Your task to perform on an android device: Go to Android settings Image 0: 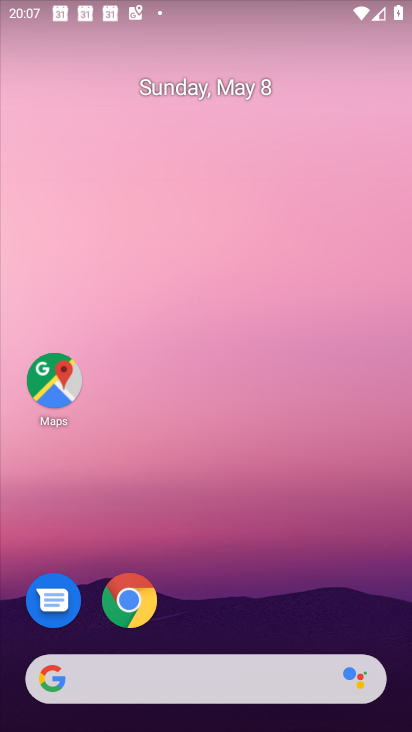
Step 0: drag from (277, 709) to (229, 172)
Your task to perform on an android device: Go to Android settings Image 1: 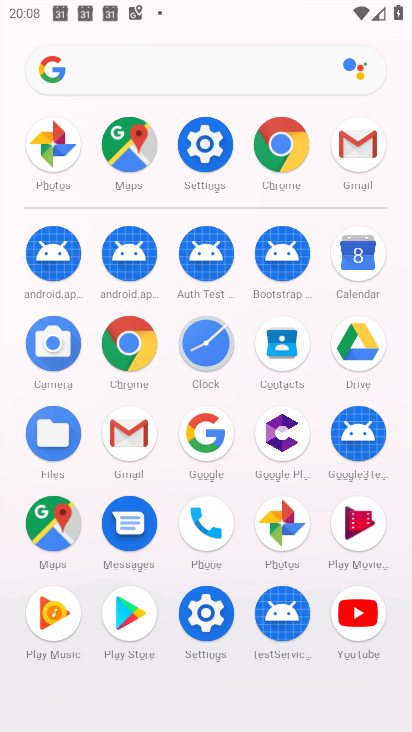
Step 1: click (220, 142)
Your task to perform on an android device: Go to Android settings Image 2: 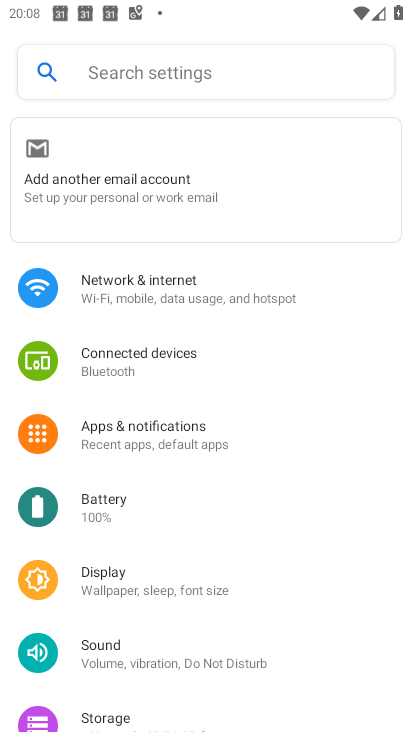
Step 2: click (144, 71)
Your task to perform on an android device: Go to Android settings Image 3: 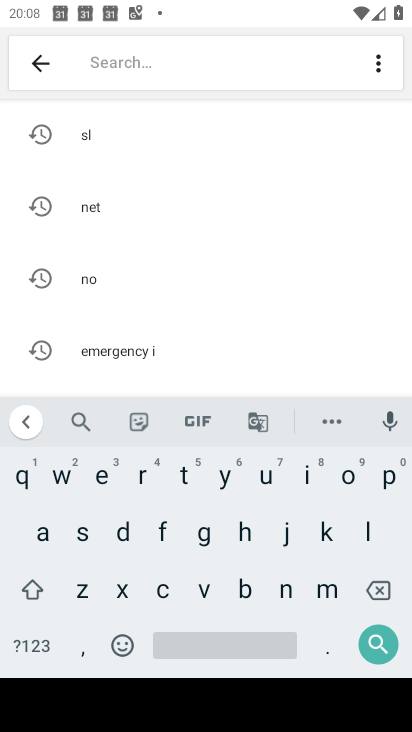
Step 3: click (47, 535)
Your task to perform on an android device: Go to Android settings Image 4: 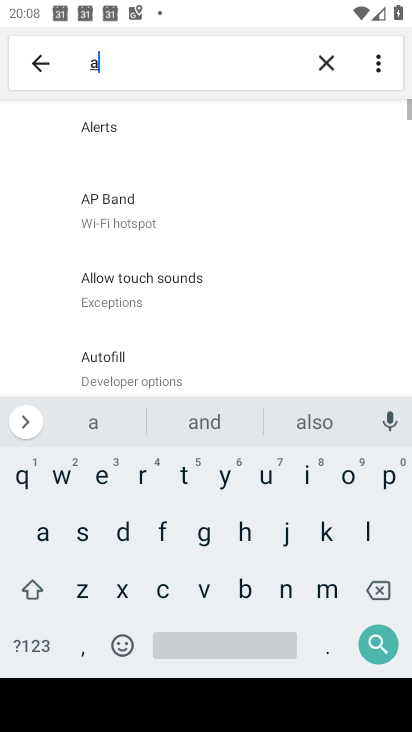
Step 4: click (277, 585)
Your task to perform on an android device: Go to Android settings Image 5: 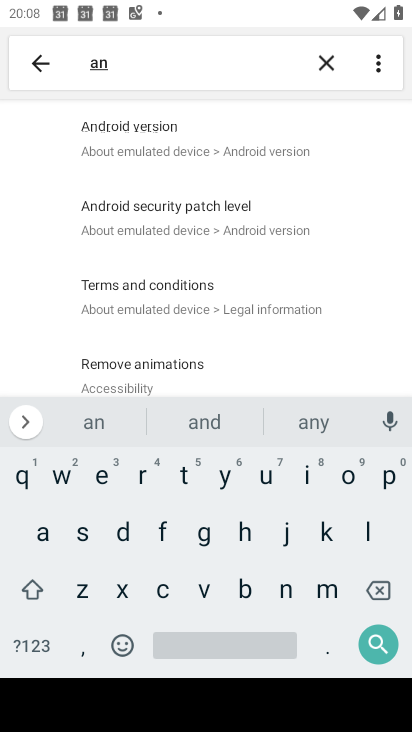
Step 5: click (157, 151)
Your task to perform on an android device: Go to Android settings Image 6: 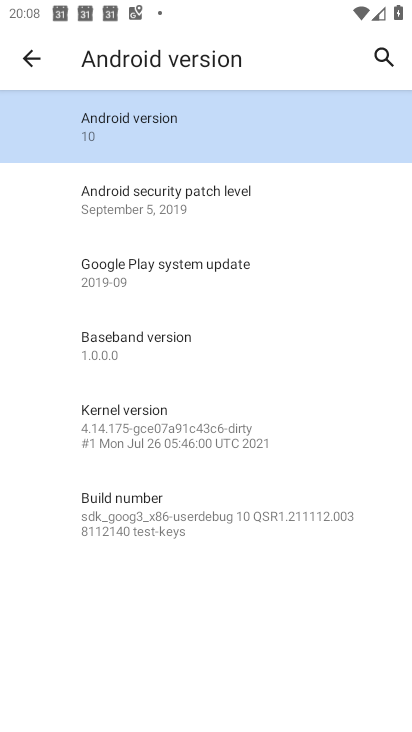
Step 6: click (157, 151)
Your task to perform on an android device: Go to Android settings Image 7: 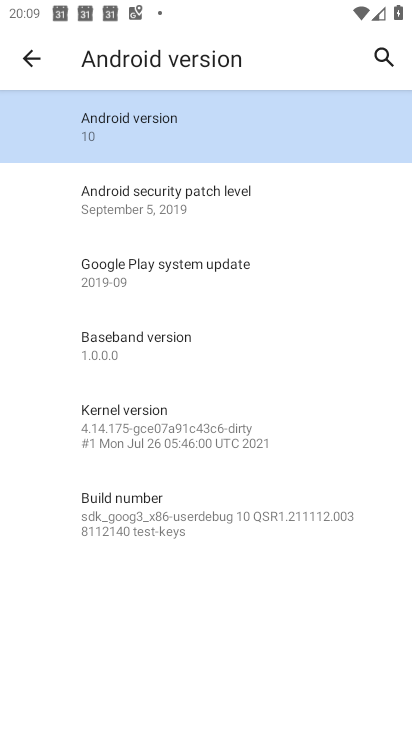
Step 7: task complete